Your task to perform on an android device: Go to Google Image 0: 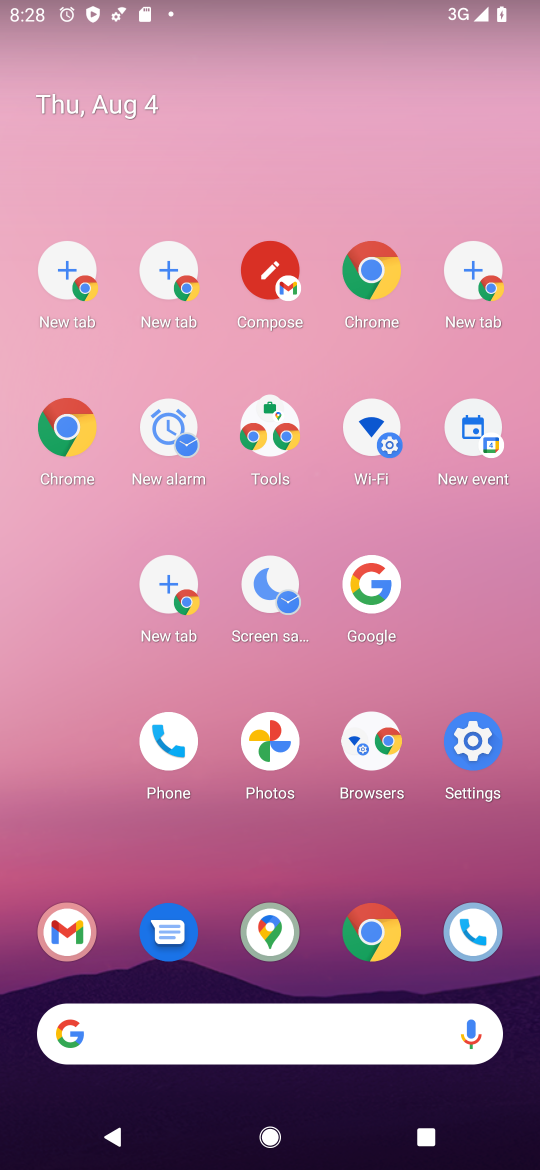
Step 0: drag from (321, 1115) to (253, 456)
Your task to perform on an android device: Go to Google Image 1: 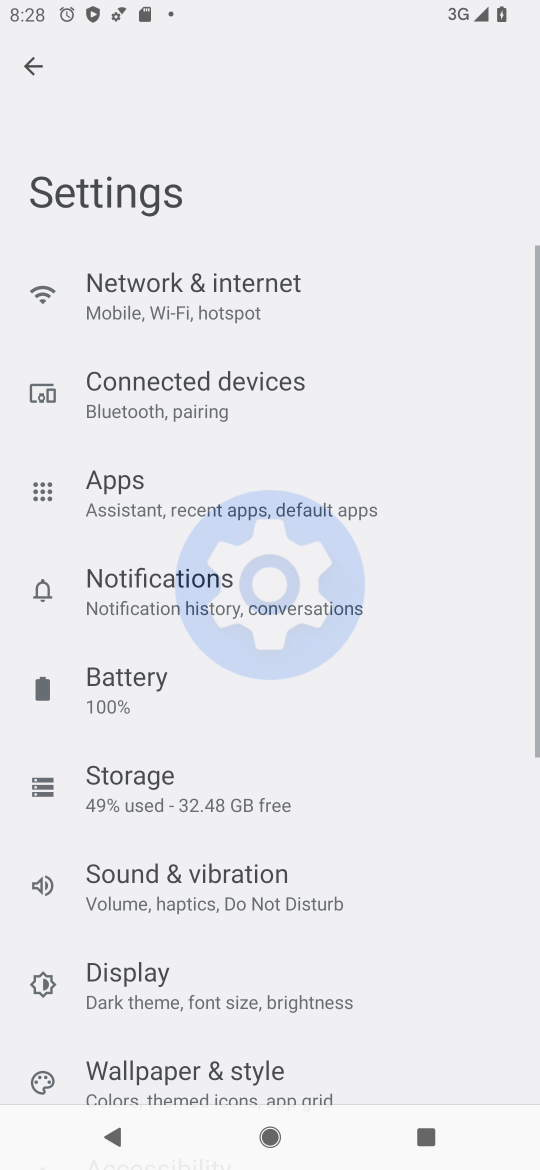
Step 1: drag from (237, 517) to (237, 360)
Your task to perform on an android device: Go to Google Image 2: 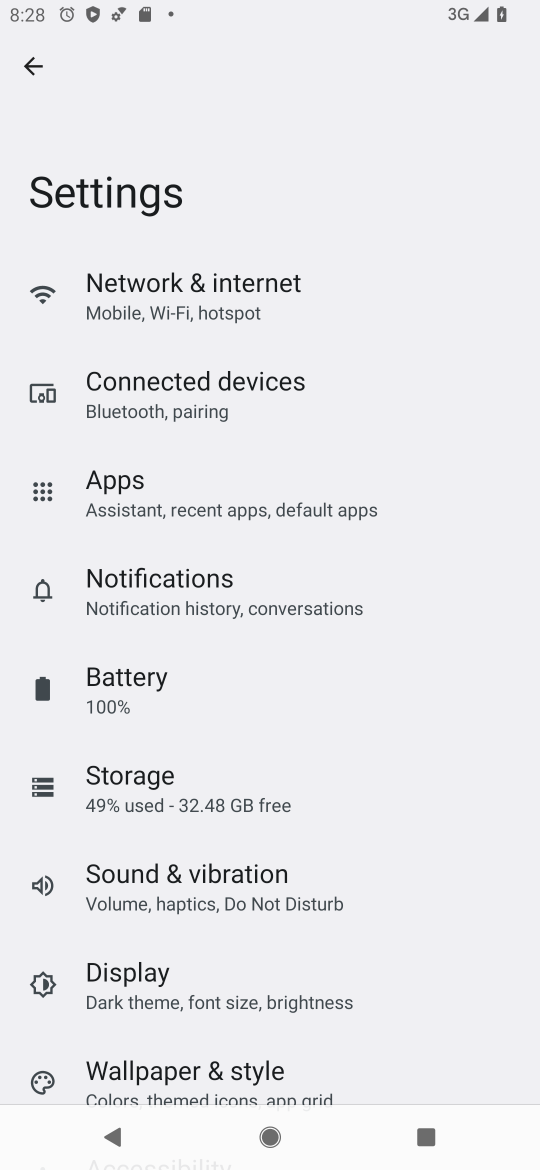
Step 2: click (107, 124)
Your task to perform on an android device: Go to Google Image 3: 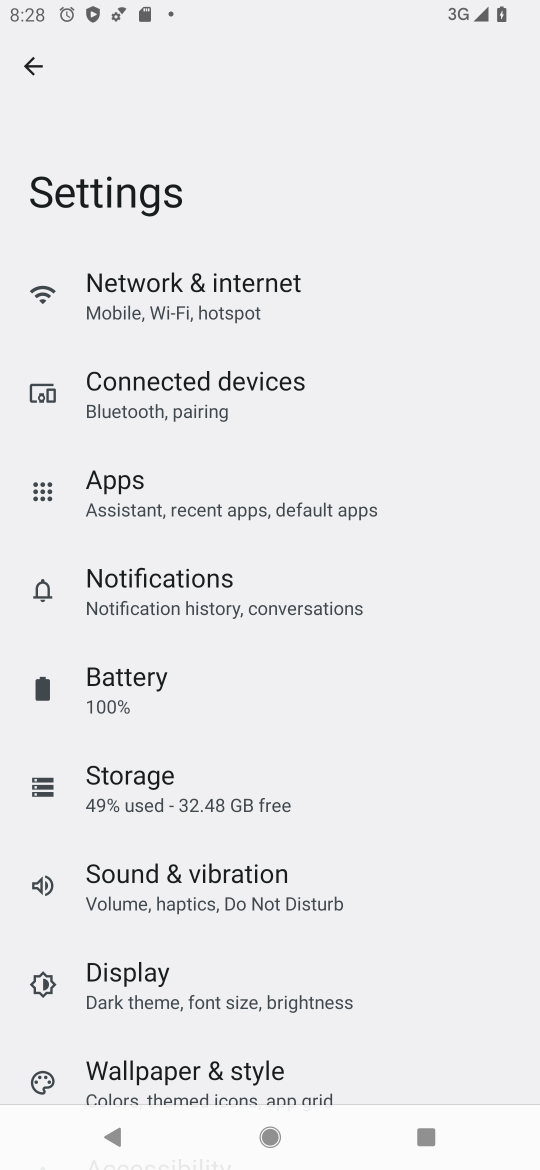
Step 3: press back button
Your task to perform on an android device: Go to Google Image 4: 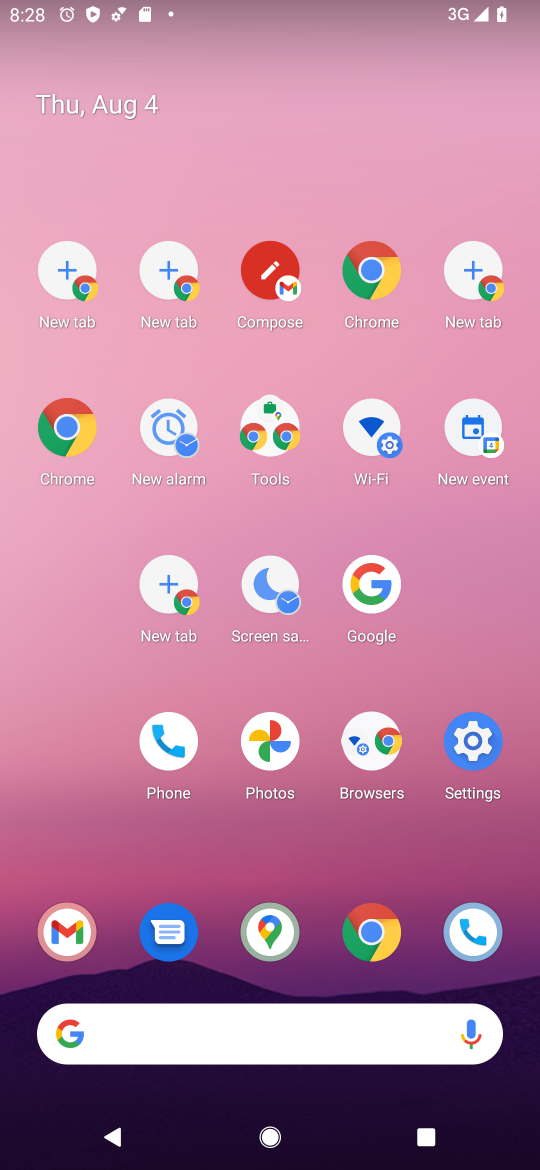
Step 4: drag from (238, 737) to (161, 5)
Your task to perform on an android device: Go to Google Image 5: 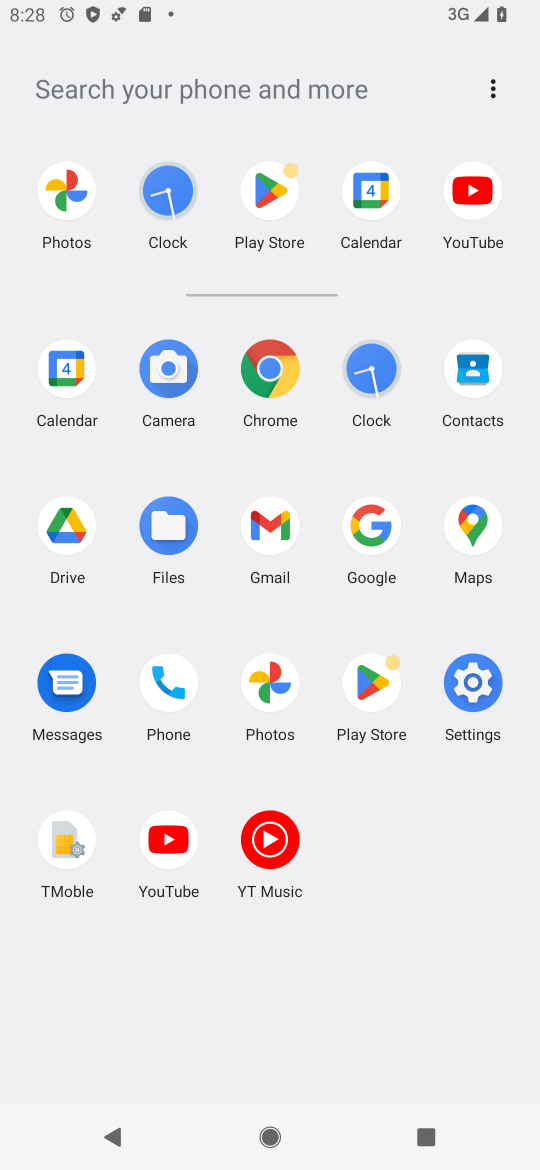
Step 5: click (367, 199)
Your task to perform on an android device: Go to Google Image 6: 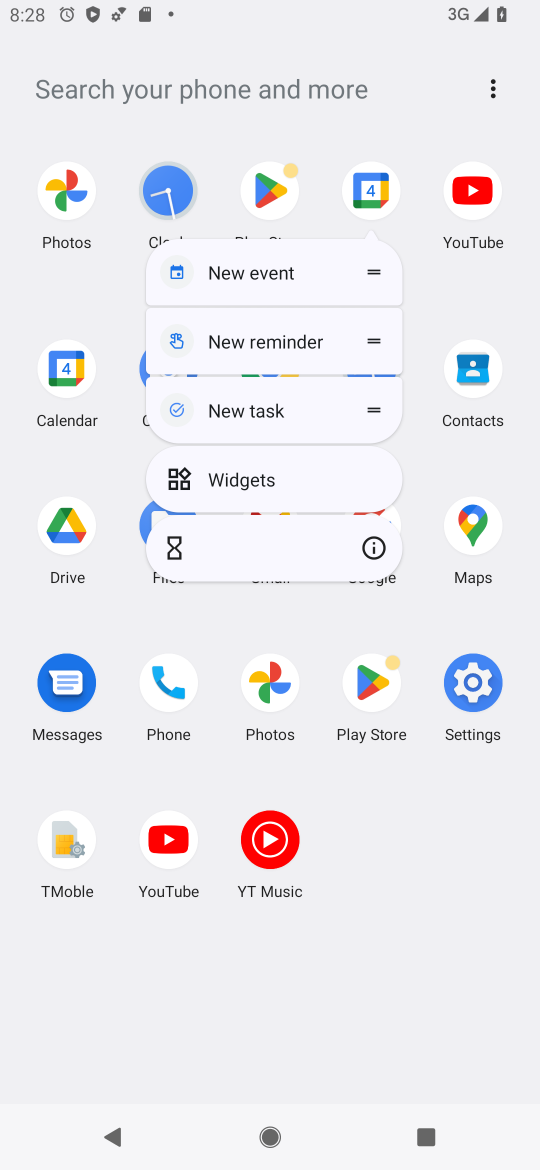
Step 6: click (378, 197)
Your task to perform on an android device: Go to Google Image 7: 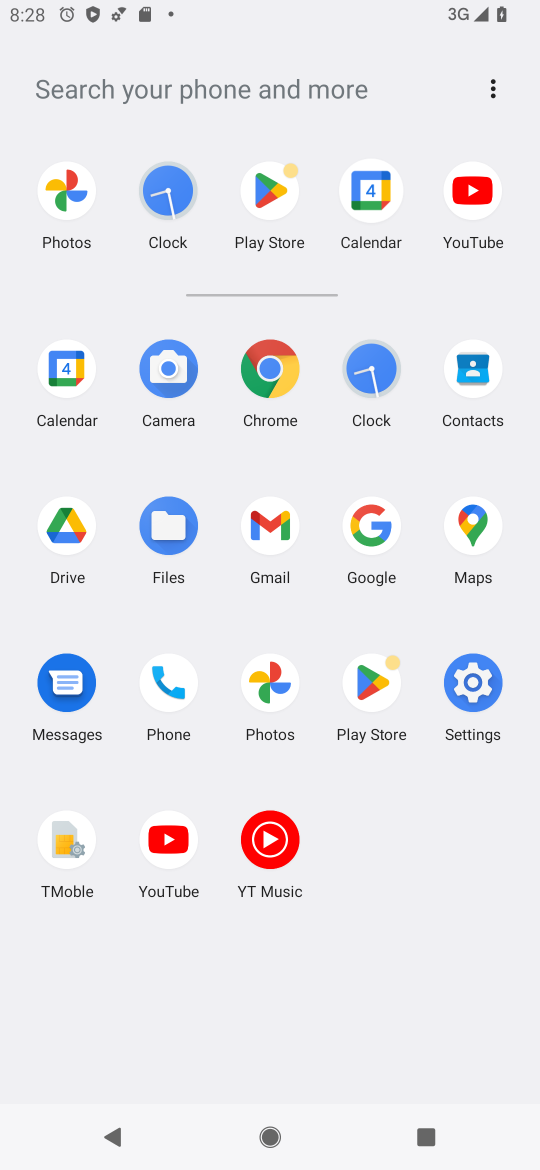
Step 7: click (319, 261)
Your task to perform on an android device: Go to Google Image 8: 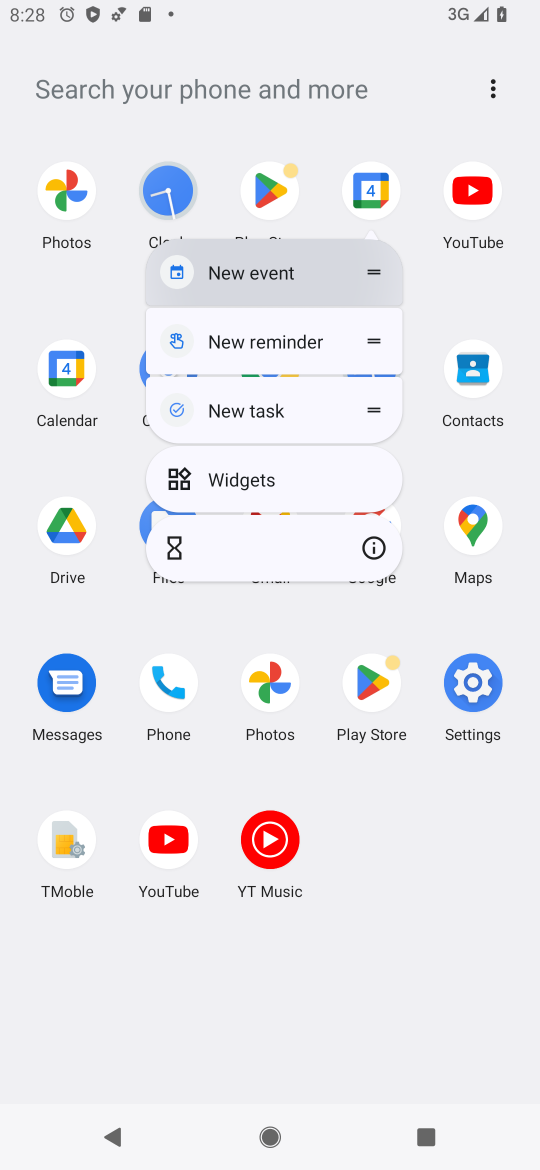
Step 8: task complete